Your task to perform on an android device: Search for Mexican restaurants on Maps Image 0: 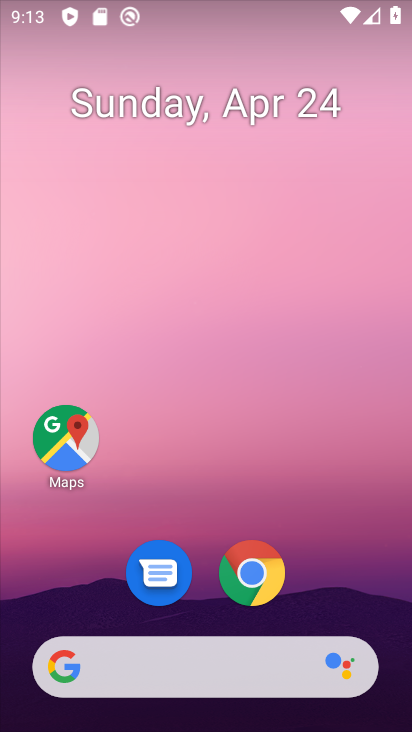
Step 0: drag from (360, 590) to (302, 65)
Your task to perform on an android device: Search for Mexican restaurants on Maps Image 1: 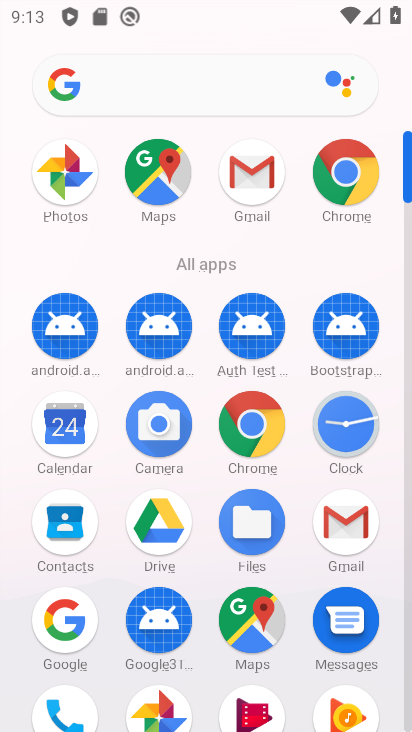
Step 1: click (255, 610)
Your task to perform on an android device: Search for Mexican restaurants on Maps Image 2: 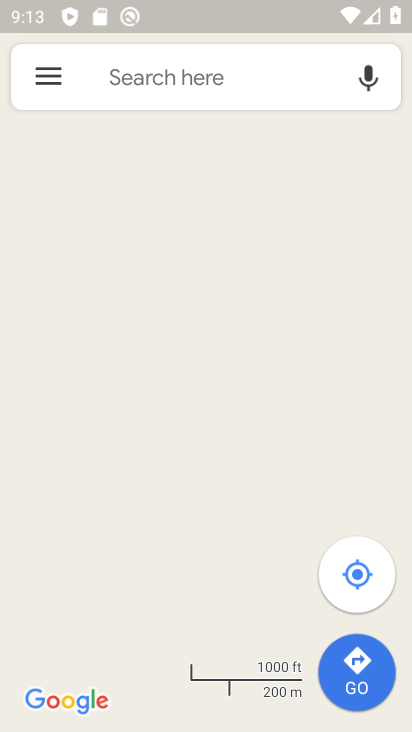
Step 2: click (248, 77)
Your task to perform on an android device: Search for Mexican restaurants on Maps Image 3: 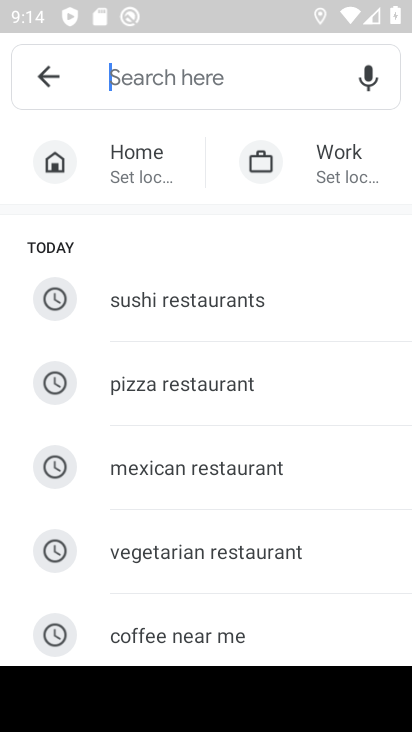
Step 3: type "mexican restaurants"
Your task to perform on an android device: Search for Mexican restaurants on Maps Image 4: 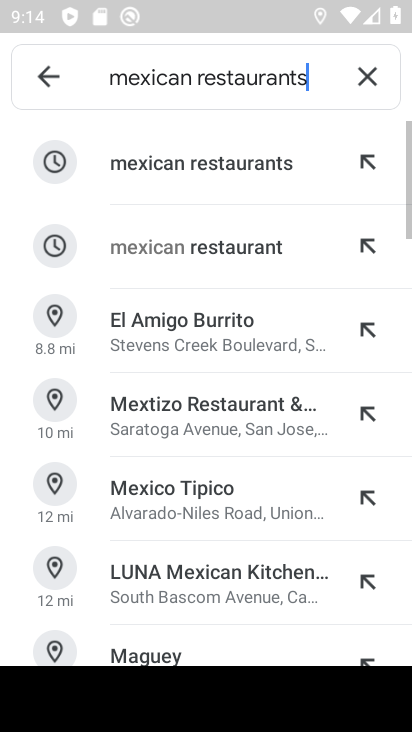
Step 4: click (239, 166)
Your task to perform on an android device: Search for Mexican restaurants on Maps Image 5: 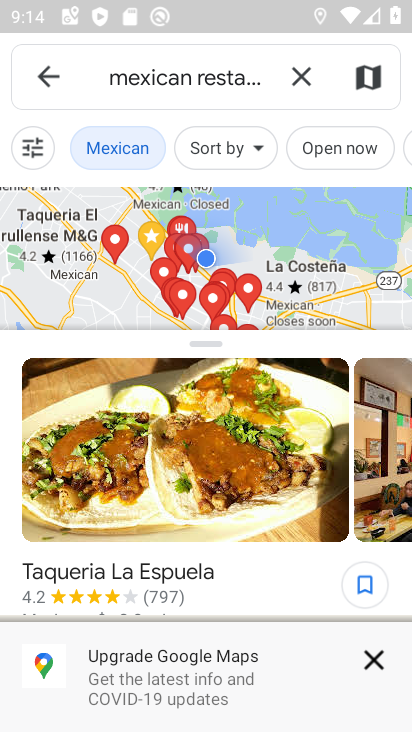
Step 5: task complete